Your task to perform on an android device: allow cookies in the chrome app Image 0: 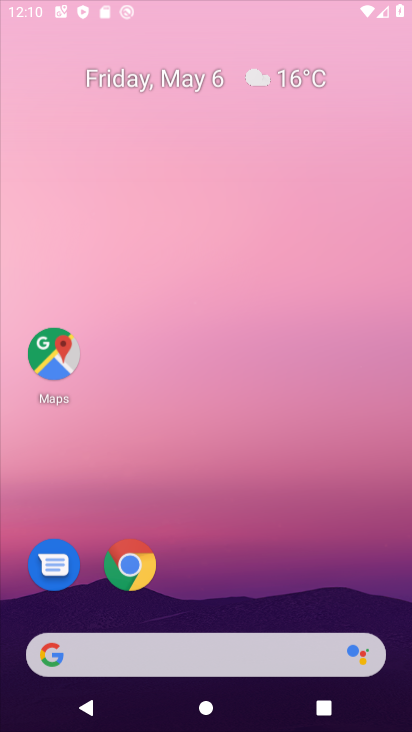
Step 0: click (251, 151)
Your task to perform on an android device: allow cookies in the chrome app Image 1: 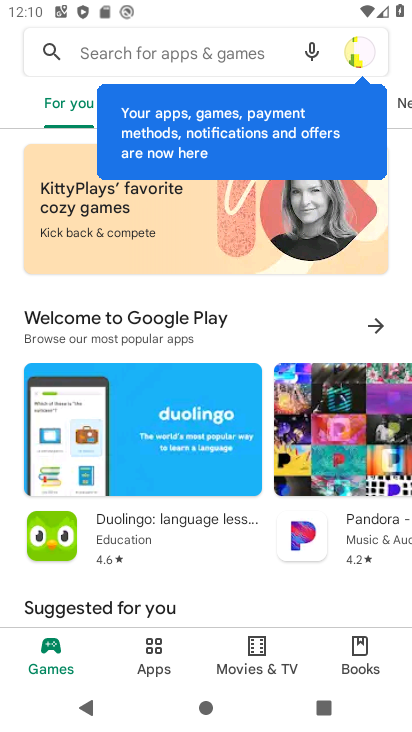
Step 1: press home button
Your task to perform on an android device: allow cookies in the chrome app Image 2: 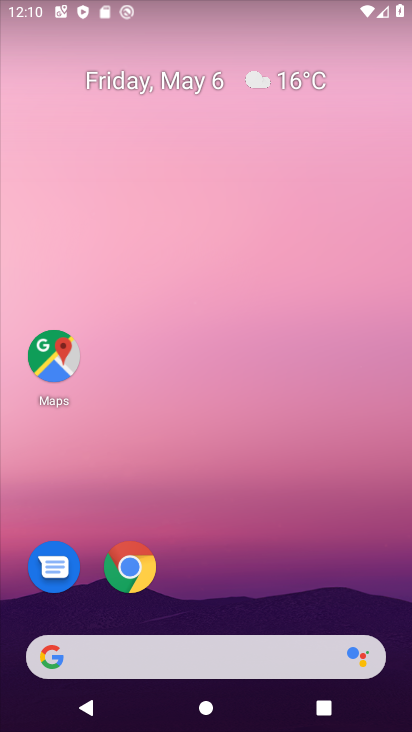
Step 2: drag from (261, 575) to (222, 196)
Your task to perform on an android device: allow cookies in the chrome app Image 3: 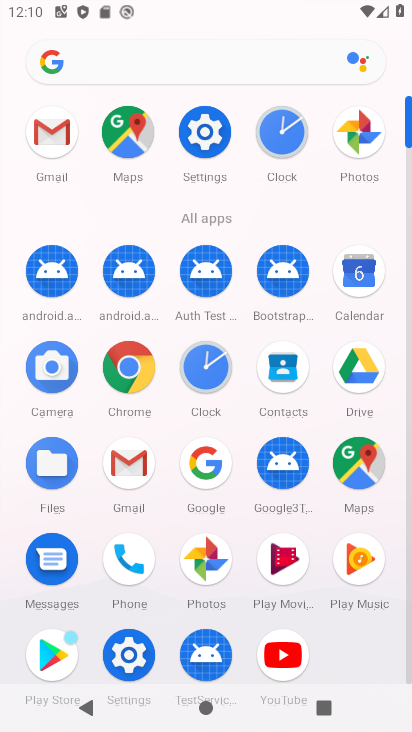
Step 3: click (117, 363)
Your task to perform on an android device: allow cookies in the chrome app Image 4: 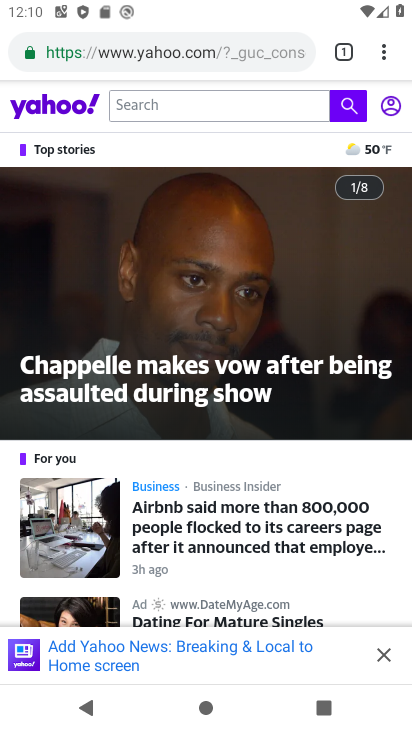
Step 4: drag from (372, 54) to (203, 614)
Your task to perform on an android device: allow cookies in the chrome app Image 5: 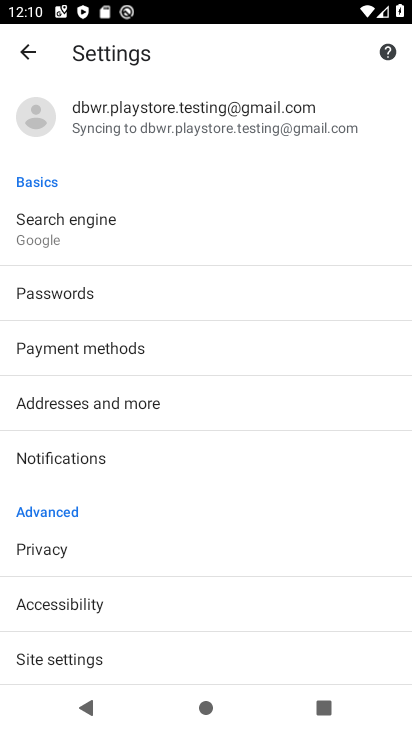
Step 5: drag from (73, 627) to (118, 219)
Your task to perform on an android device: allow cookies in the chrome app Image 6: 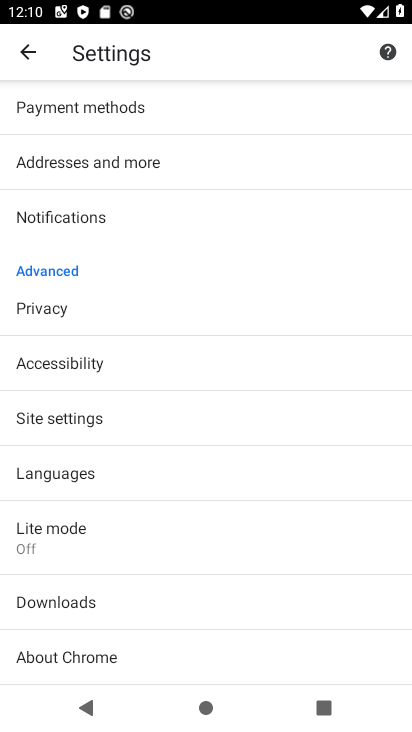
Step 6: click (68, 436)
Your task to perform on an android device: allow cookies in the chrome app Image 7: 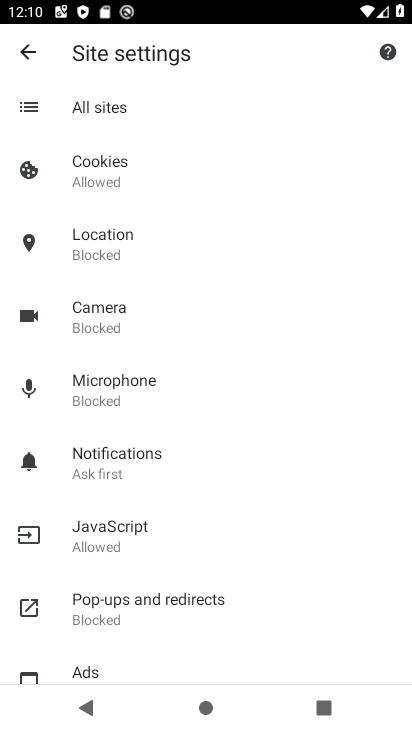
Step 7: click (102, 172)
Your task to perform on an android device: allow cookies in the chrome app Image 8: 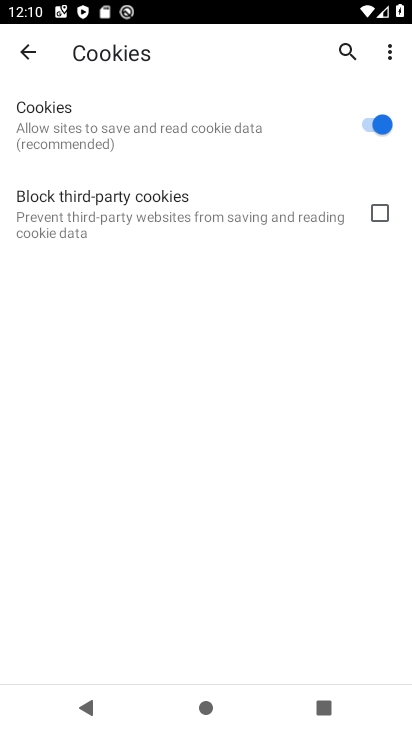
Step 8: task complete